Your task to perform on an android device: Search for pizza restaurants on Maps Image 0: 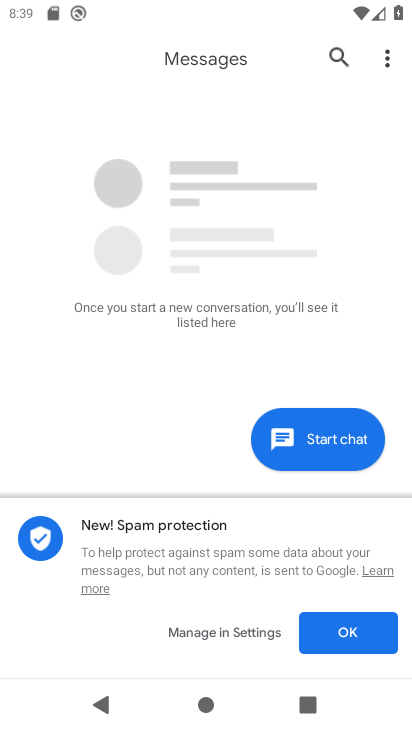
Step 0: press home button
Your task to perform on an android device: Search for pizza restaurants on Maps Image 1: 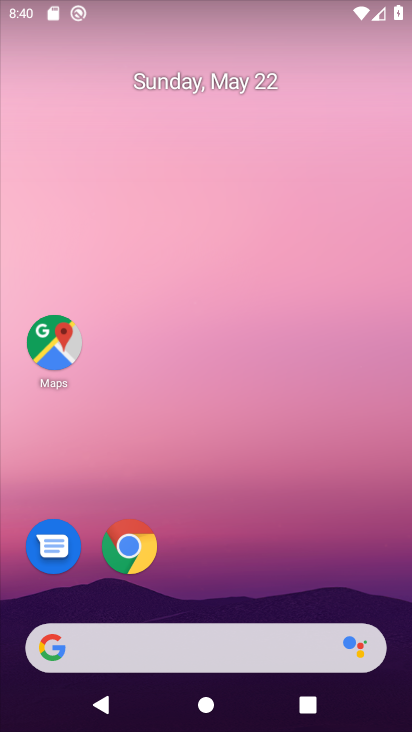
Step 1: drag from (374, 604) to (380, 137)
Your task to perform on an android device: Search for pizza restaurants on Maps Image 2: 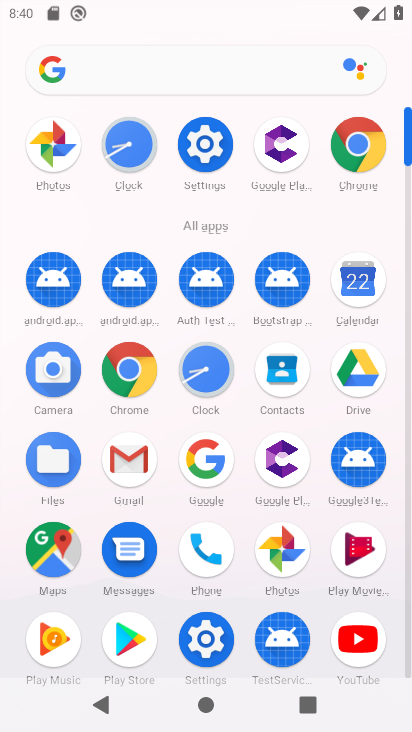
Step 2: click (44, 536)
Your task to perform on an android device: Search for pizza restaurants on Maps Image 3: 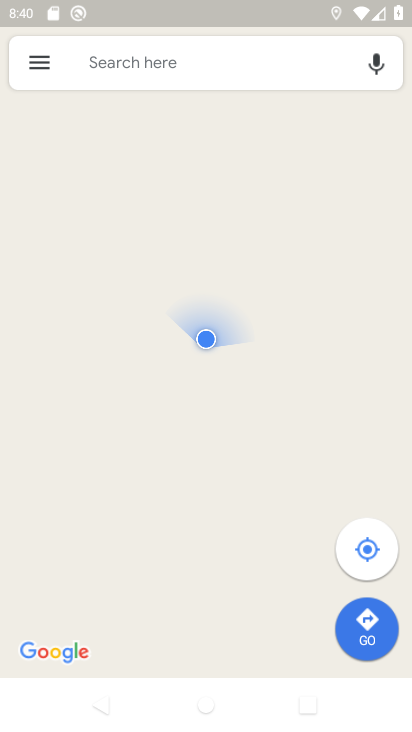
Step 3: click (184, 69)
Your task to perform on an android device: Search for pizza restaurants on Maps Image 4: 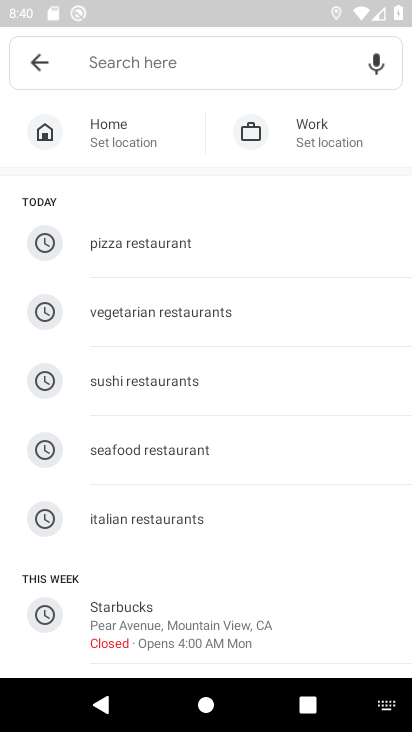
Step 4: type "pizzaa "
Your task to perform on an android device: Search for pizza restaurants on Maps Image 5: 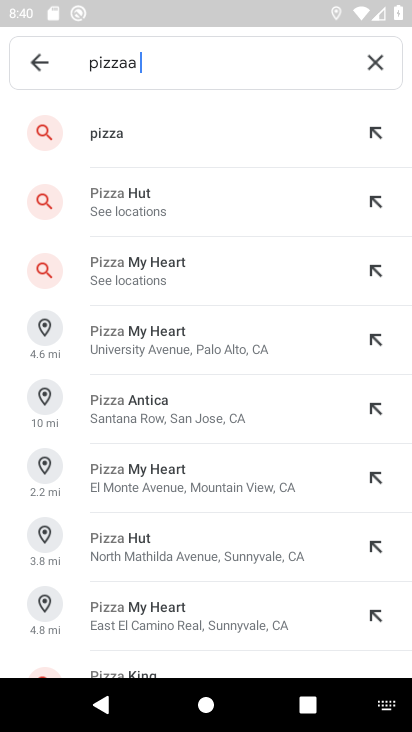
Step 5: click (163, 147)
Your task to perform on an android device: Search for pizza restaurants on Maps Image 6: 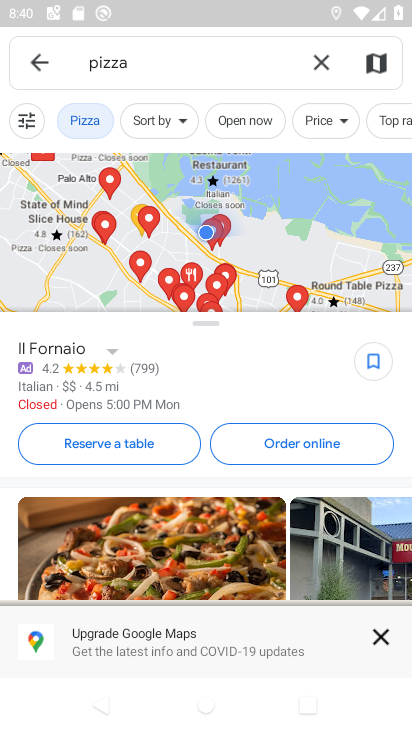
Step 6: task complete